Your task to perform on an android device: refresh tabs in the chrome app Image 0: 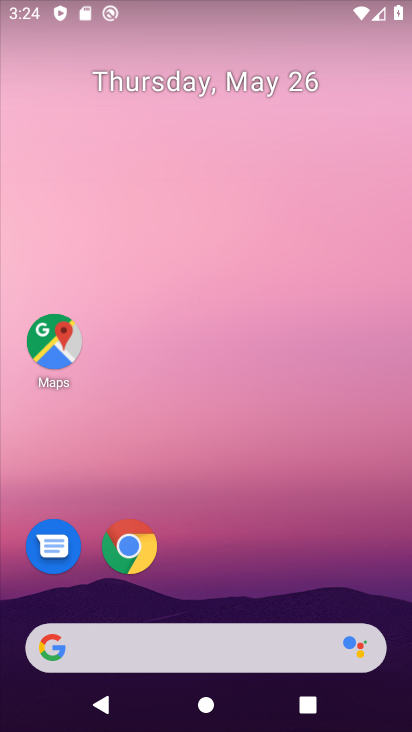
Step 0: click (133, 548)
Your task to perform on an android device: refresh tabs in the chrome app Image 1: 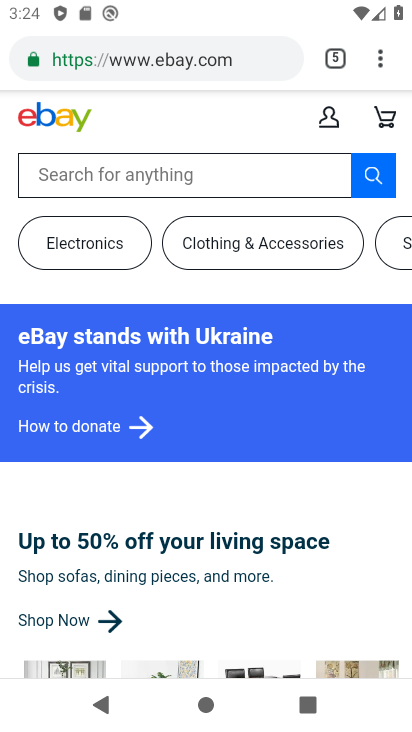
Step 1: click (128, 540)
Your task to perform on an android device: refresh tabs in the chrome app Image 2: 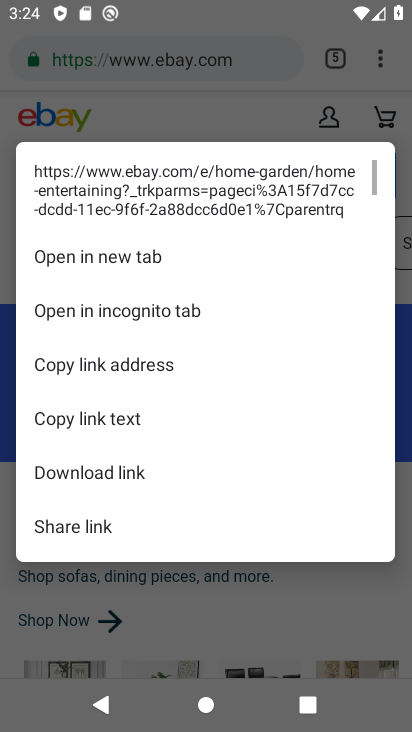
Step 2: click (386, 59)
Your task to perform on an android device: refresh tabs in the chrome app Image 3: 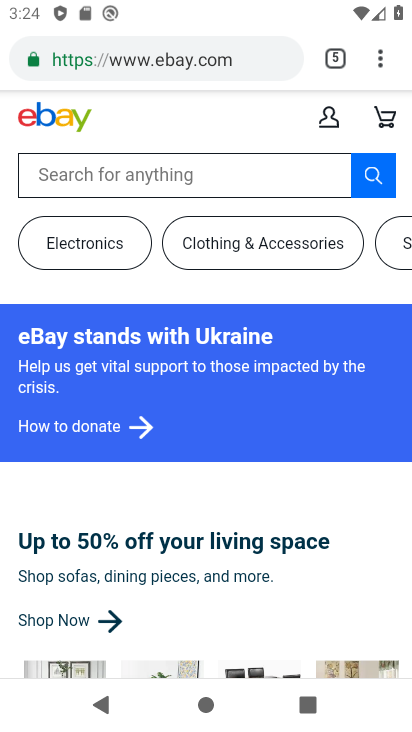
Step 3: click (371, 57)
Your task to perform on an android device: refresh tabs in the chrome app Image 4: 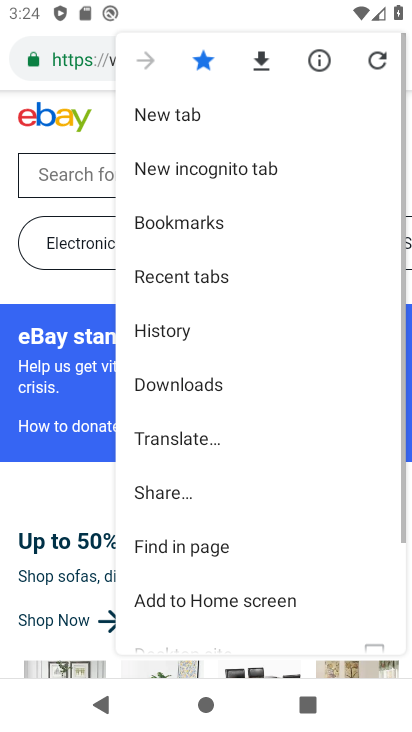
Step 4: click (371, 57)
Your task to perform on an android device: refresh tabs in the chrome app Image 5: 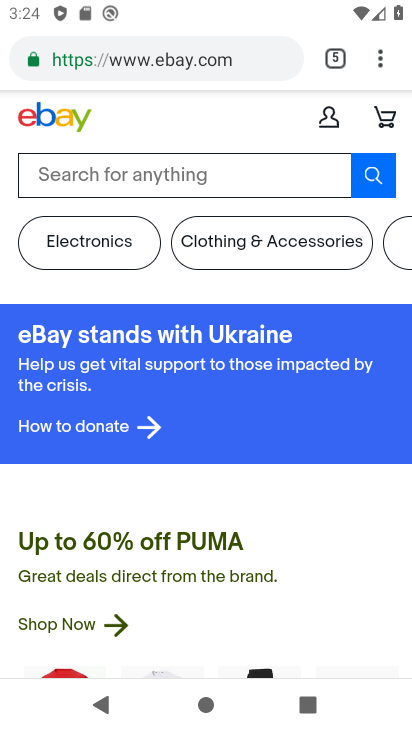
Step 5: task complete